Your task to perform on an android device: Go to display settings Image 0: 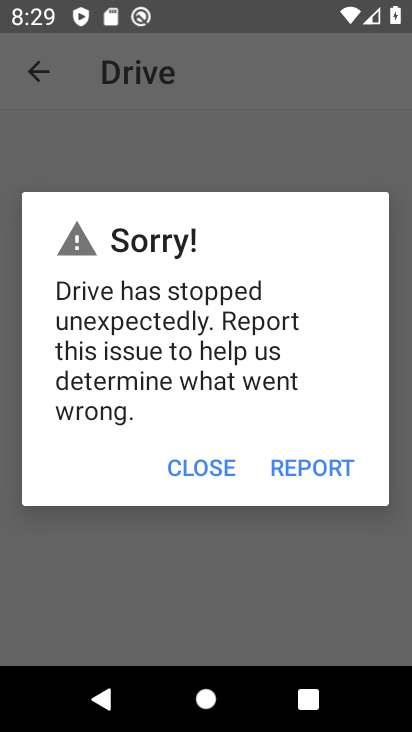
Step 0: click (172, 475)
Your task to perform on an android device: Go to display settings Image 1: 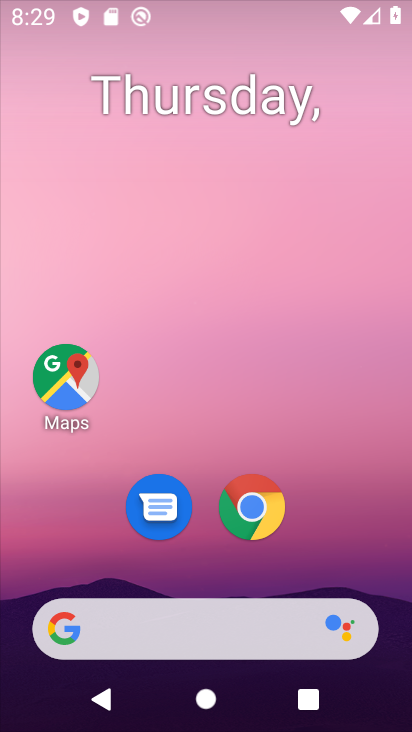
Step 1: press home button
Your task to perform on an android device: Go to display settings Image 2: 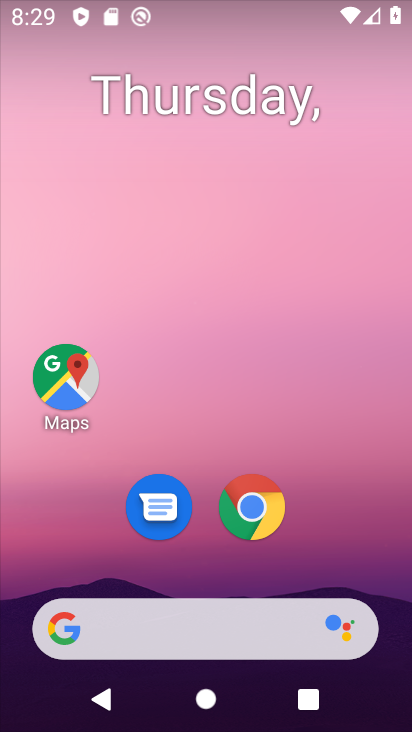
Step 2: drag from (208, 559) to (280, 26)
Your task to perform on an android device: Go to display settings Image 3: 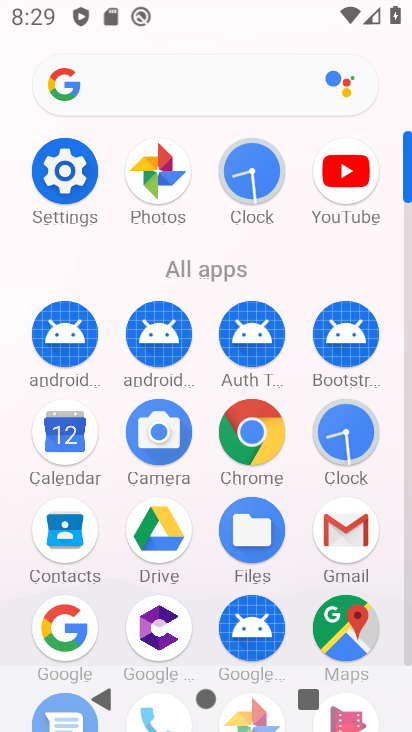
Step 3: click (54, 177)
Your task to perform on an android device: Go to display settings Image 4: 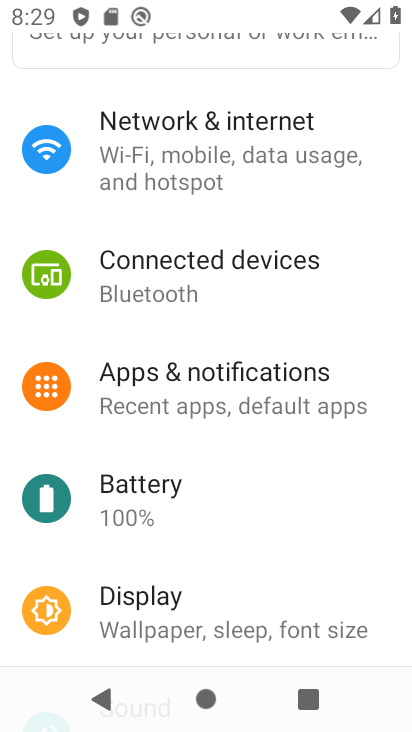
Step 4: click (140, 600)
Your task to perform on an android device: Go to display settings Image 5: 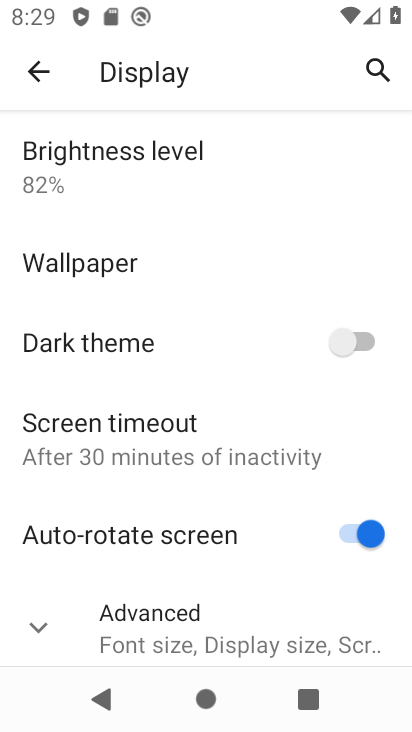
Step 5: task complete